Your task to perform on an android device: delete the emails in spam in the gmail app Image 0: 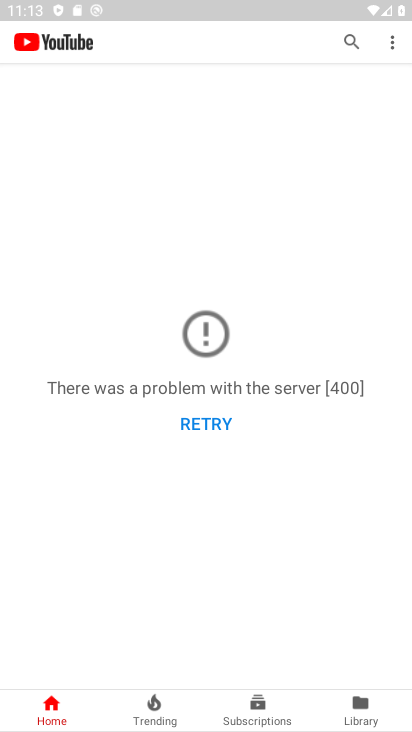
Step 0: press back button
Your task to perform on an android device: delete the emails in spam in the gmail app Image 1: 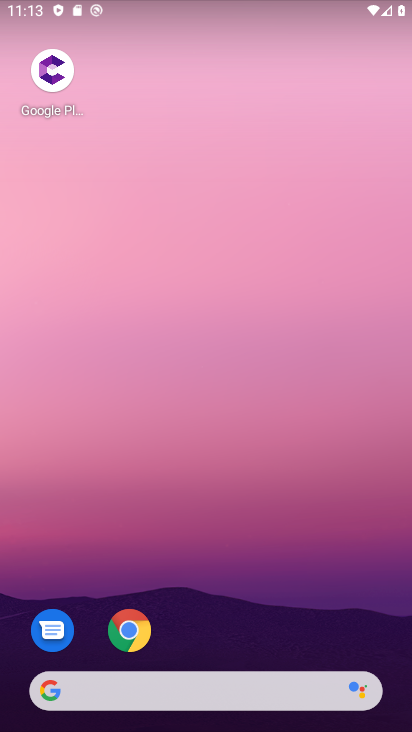
Step 1: drag from (205, 620) to (297, 104)
Your task to perform on an android device: delete the emails in spam in the gmail app Image 2: 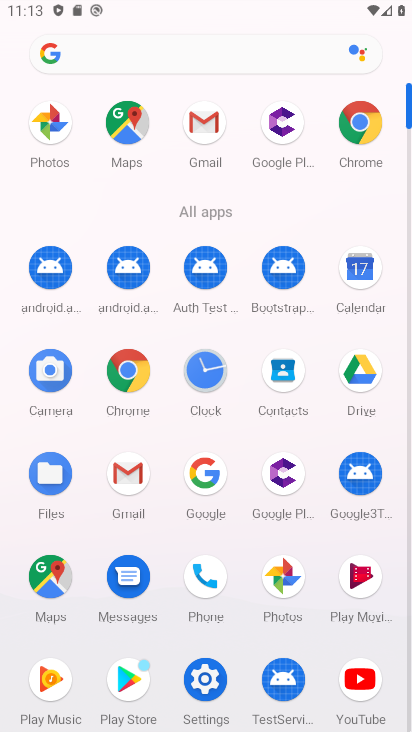
Step 2: click (200, 127)
Your task to perform on an android device: delete the emails in spam in the gmail app Image 3: 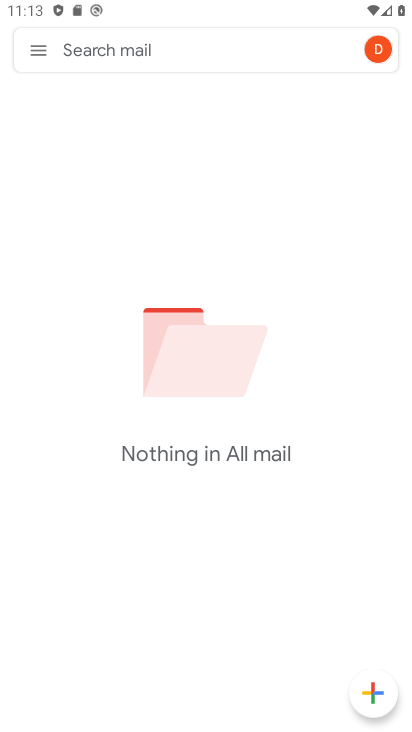
Step 3: click (34, 45)
Your task to perform on an android device: delete the emails in spam in the gmail app Image 4: 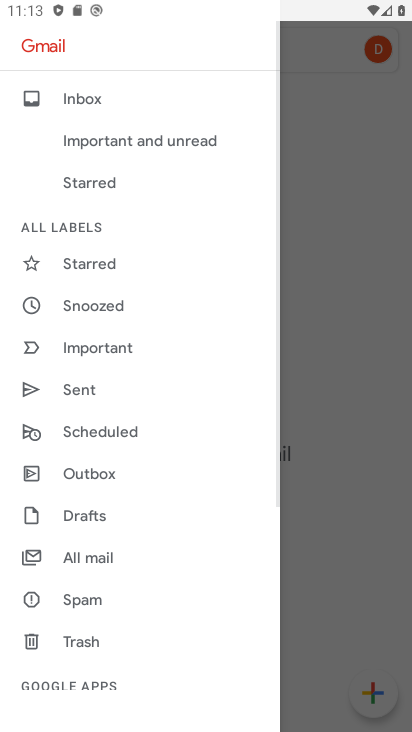
Step 4: click (62, 590)
Your task to perform on an android device: delete the emails in spam in the gmail app Image 5: 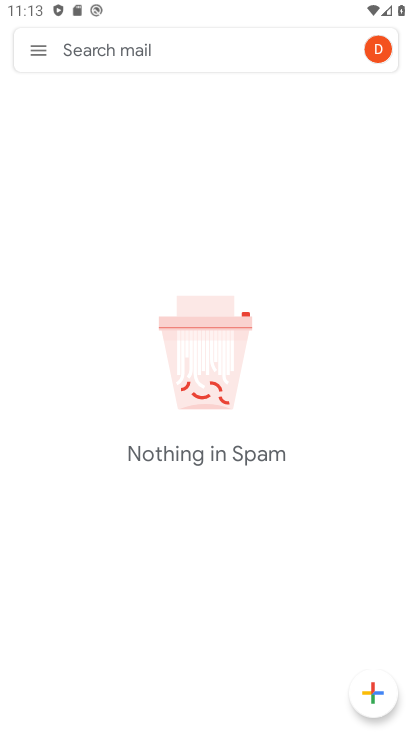
Step 5: task complete